Your task to perform on an android device: toggle pop-ups in chrome Image 0: 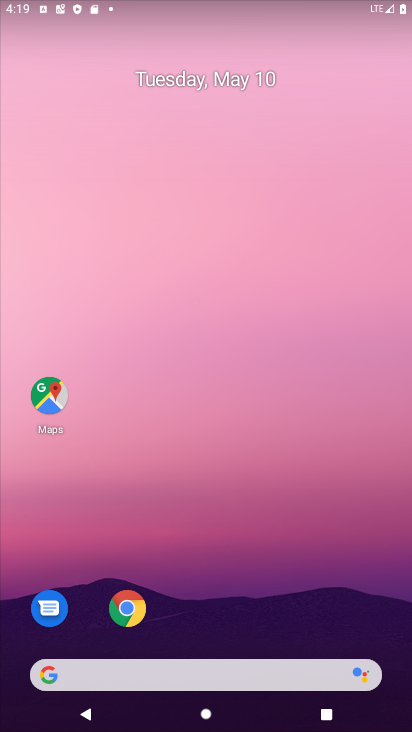
Step 0: click (132, 612)
Your task to perform on an android device: toggle pop-ups in chrome Image 1: 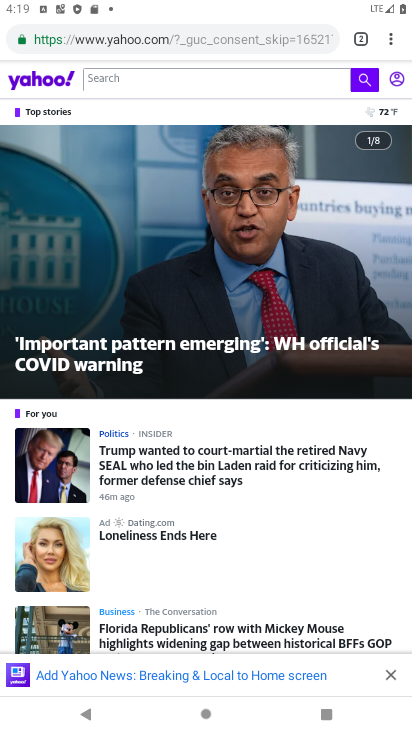
Step 1: click (389, 39)
Your task to perform on an android device: toggle pop-ups in chrome Image 2: 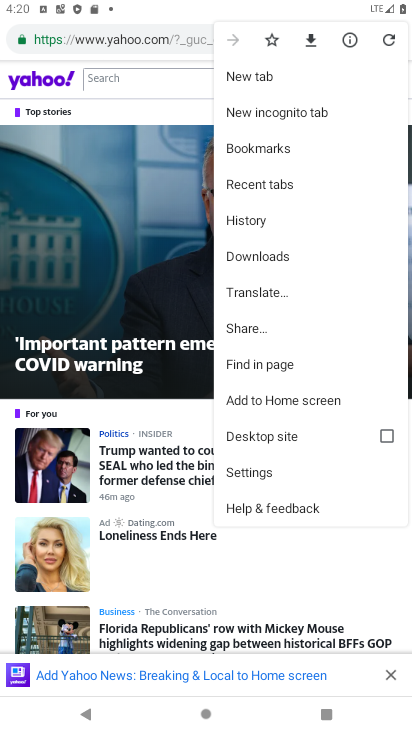
Step 2: click (252, 472)
Your task to perform on an android device: toggle pop-ups in chrome Image 3: 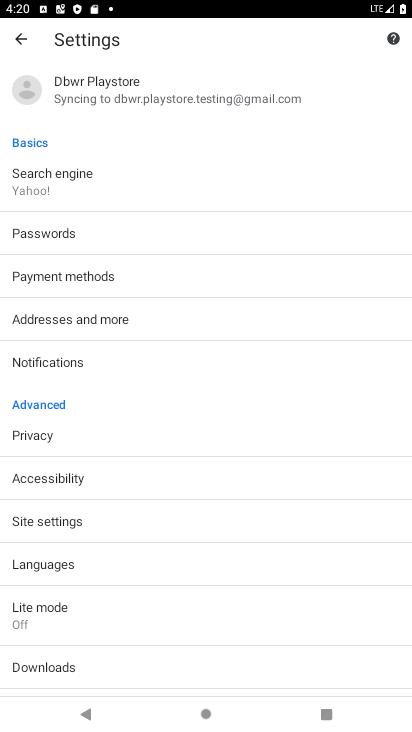
Step 3: click (41, 521)
Your task to perform on an android device: toggle pop-ups in chrome Image 4: 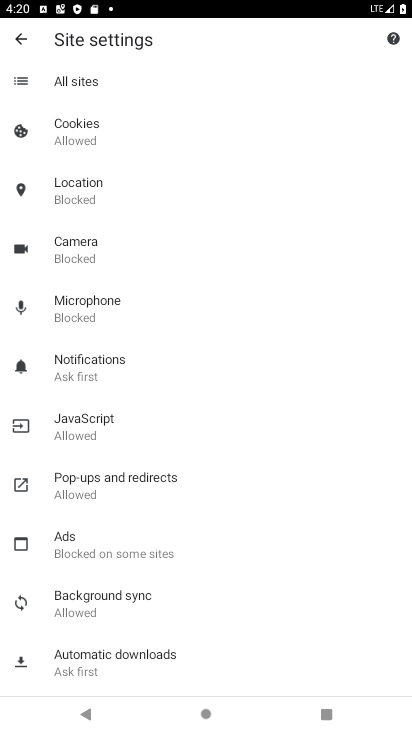
Step 4: click (68, 480)
Your task to perform on an android device: toggle pop-ups in chrome Image 5: 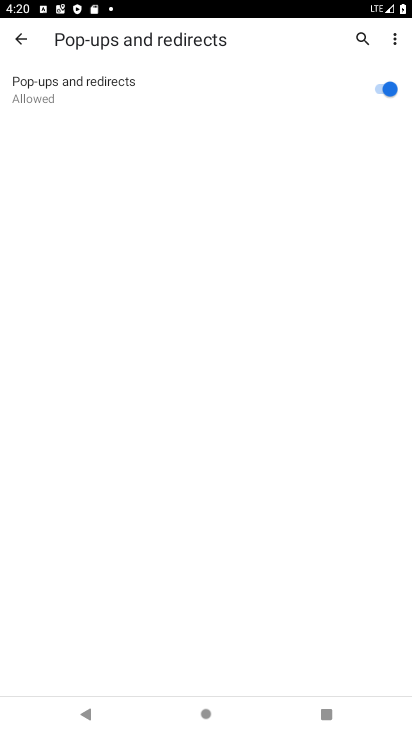
Step 5: click (376, 88)
Your task to perform on an android device: toggle pop-ups in chrome Image 6: 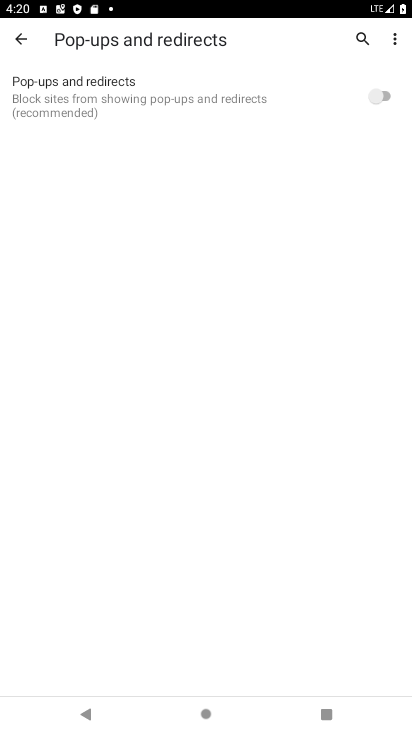
Step 6: task complete